Your task to perform on an android device: Go to notification settings Image 0: 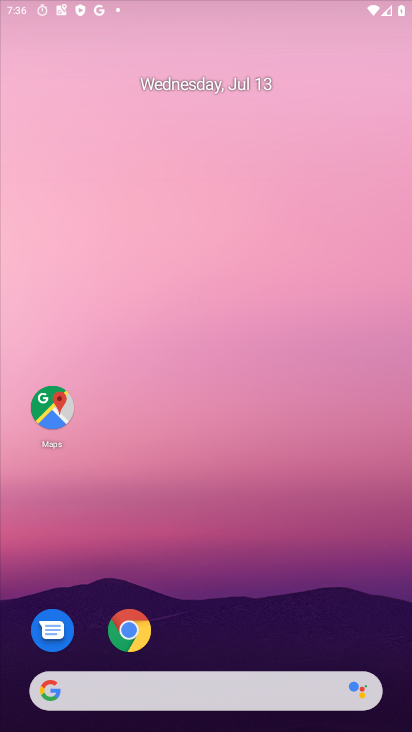
Step 0: drag from (367, 662) to (316, 15)
Your task to perform on an android device: Go to notification settings Image 1: 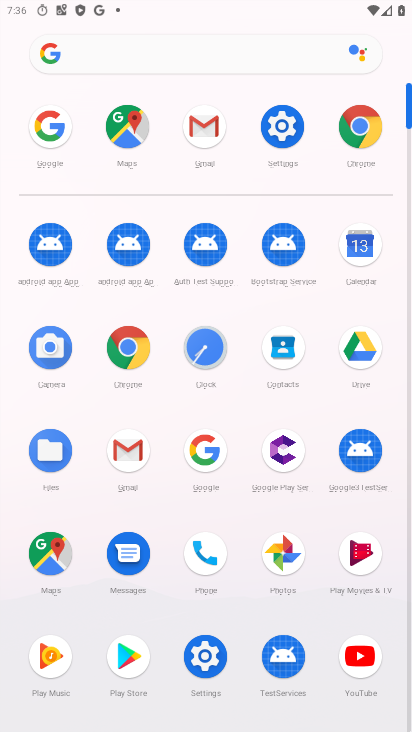
Step 1: click (285, 133)
Your task to perform on an android device: Go to notification settings Image 2: 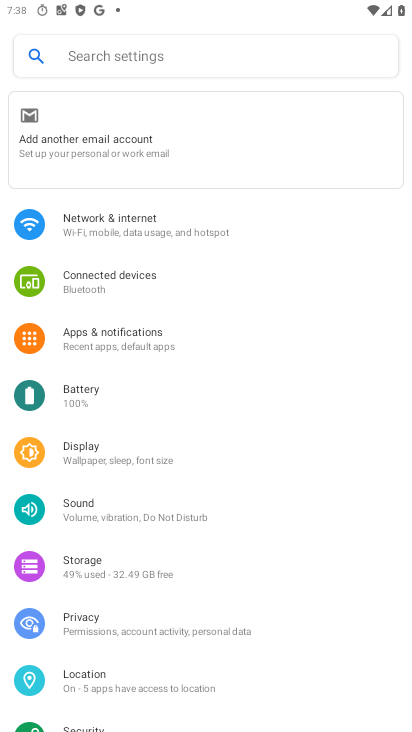
Step 2: click (146, 345)
Your task to perform on an android device: Go to notification settings Image 3: 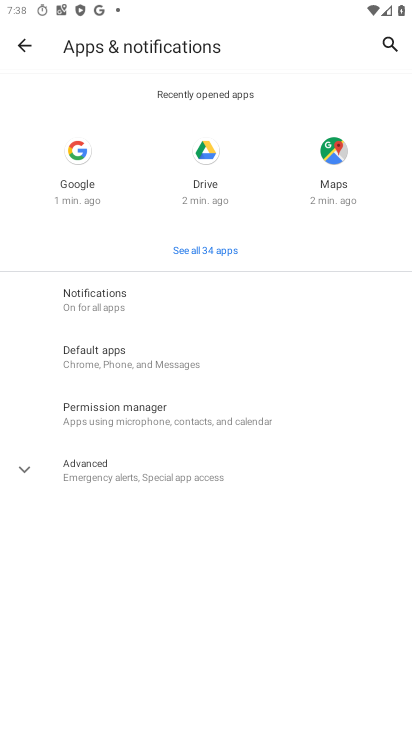
Step 3: click (106, 300)
Your task to perform on an android device: Go to notification settings Image 4: 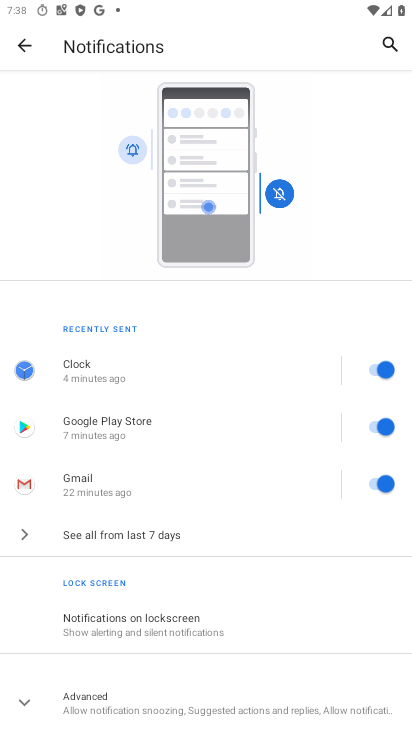
Step 4: task complete